Your task to perform on an android device: read, delete, or share a saved page in the chrome app Image 0: 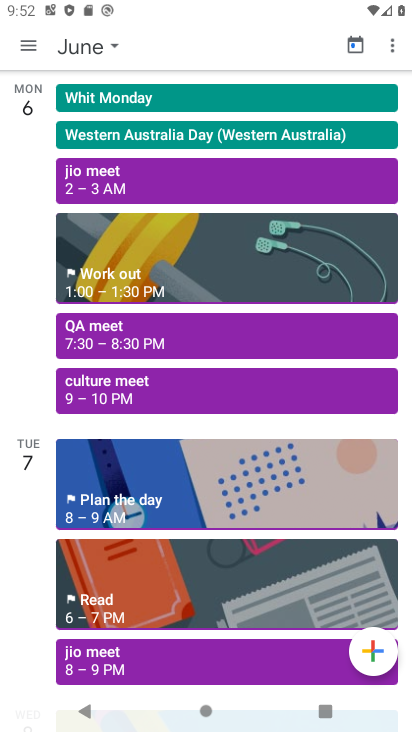
Step 0: press home button
Your task to perform on an android device: read, delete, or share a saved page in the chrome app Image 1: 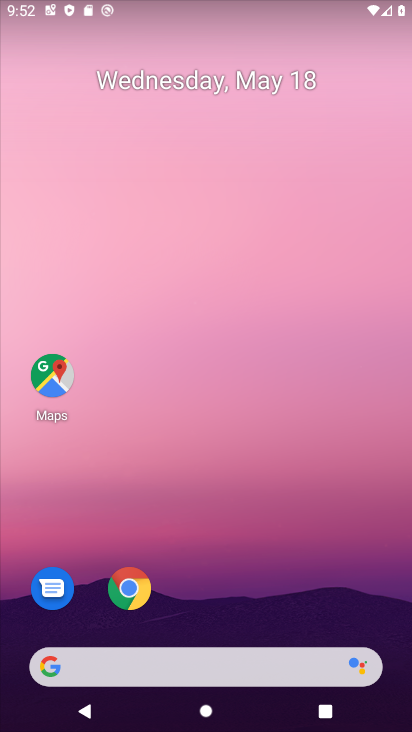
Step 1: drag from (277, 690) to (200, 91)
Your task to perform on an android device: read, delete, or share a saved page in the chrome app Image 2: 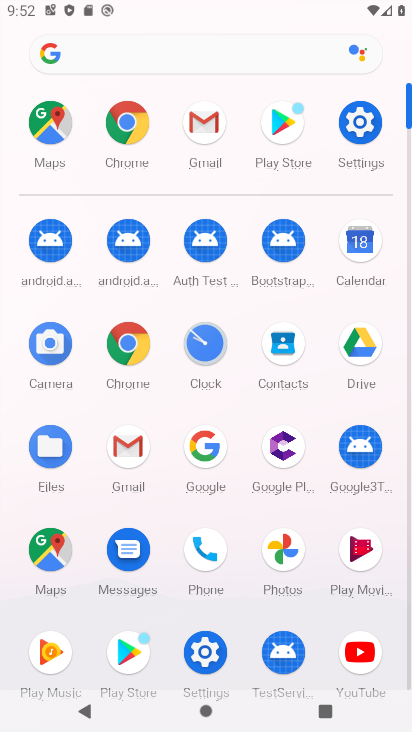
Step 2: click (138, 115)
Your task to perform on an android device: read, delete, or share a saved page in the chrome app Image 3: 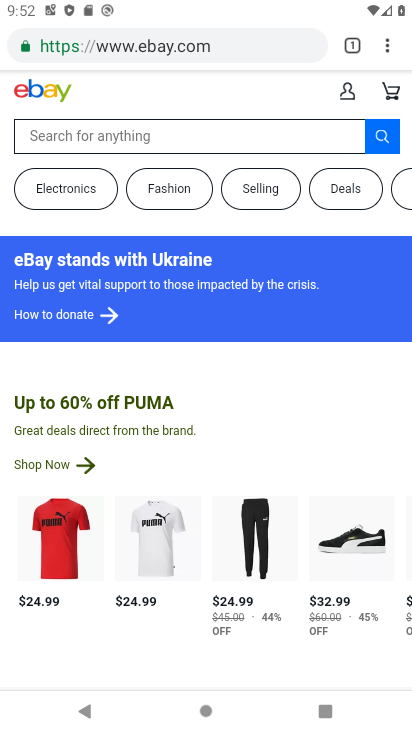
Step 3: click (388, 47)
Your task to perform on an android device: read, delete, or share a saved page in the chrome app Image 4: 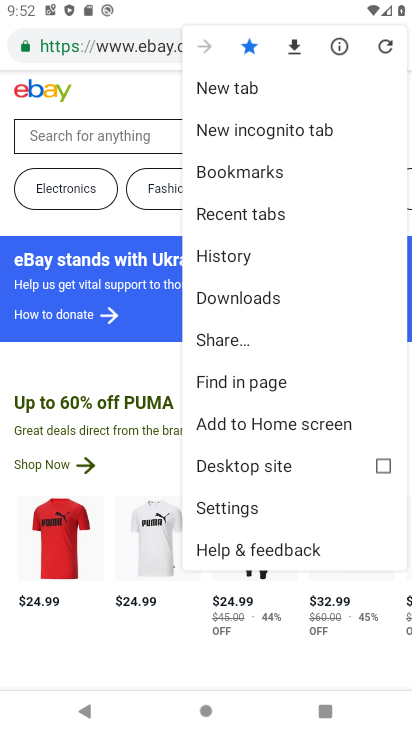
Step 4: click (259, 347)
Your task to perform on an android device: read, delete, or share a saved page in the chrome app Image 5: 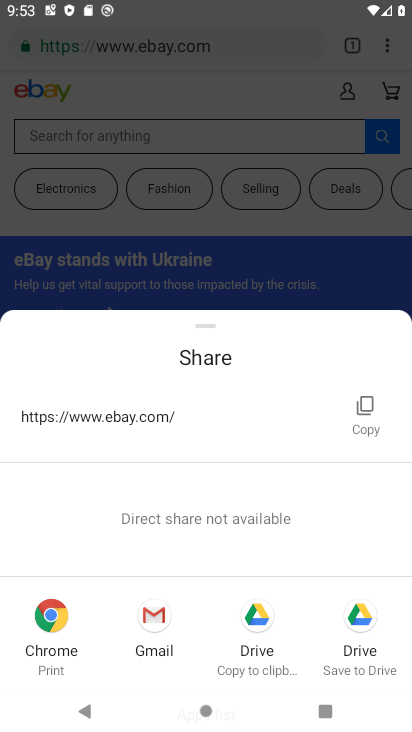
Step 5: task complete